Your task to perform on an android device: add a contact in the contacts app Image 0: 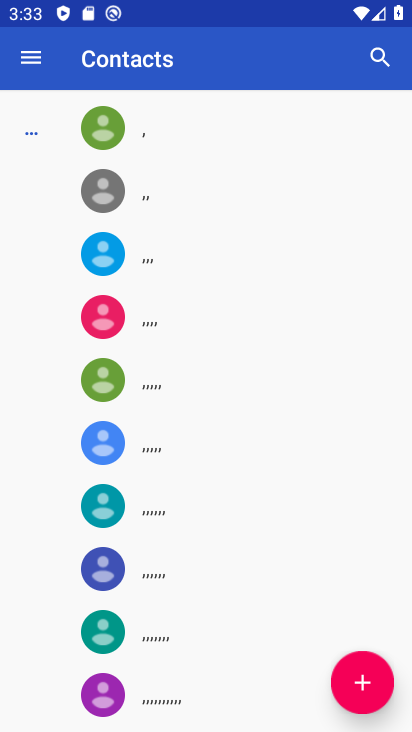
Step 0: click (362, 682)
Your task to perform on an android device: add a contact in the contacts app Image 1: 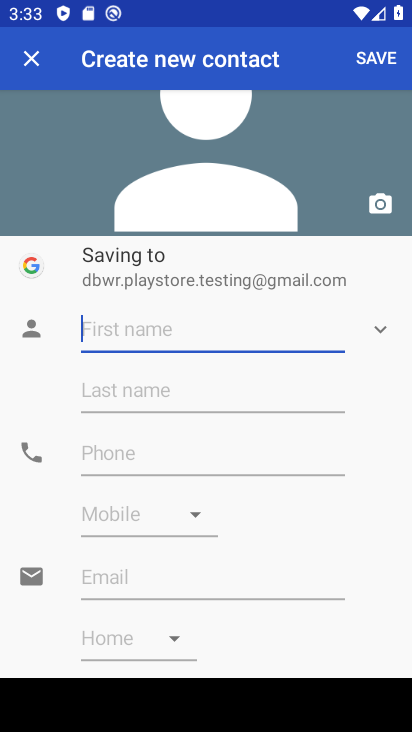
Step 1: type "xhjxbhj"
Your task to perform on an android device: add a contact in the contacts app Image 2: 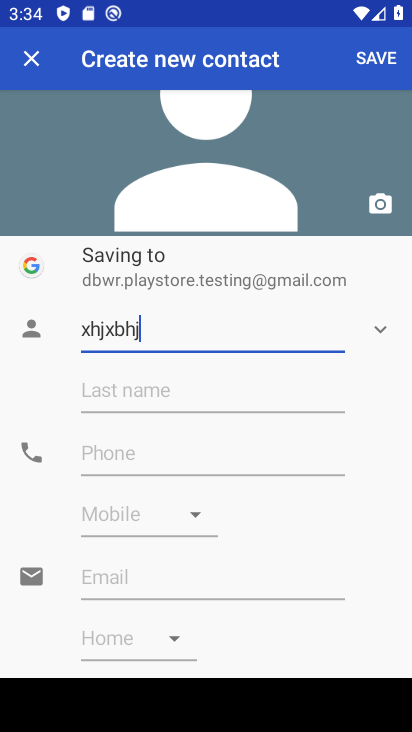
Step 2: click (230, 459)
Your task to perform on an android device: add a contact in the contacts app Image 3: 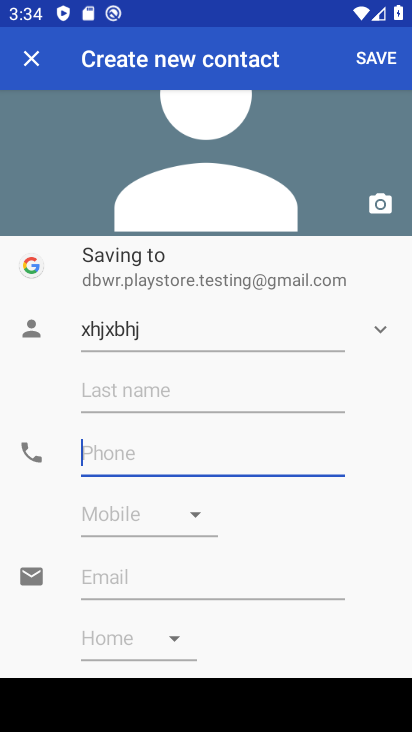
Step 3: type "738387"
Your task to perform on an android device: add a contact in the contacts app Image 4: 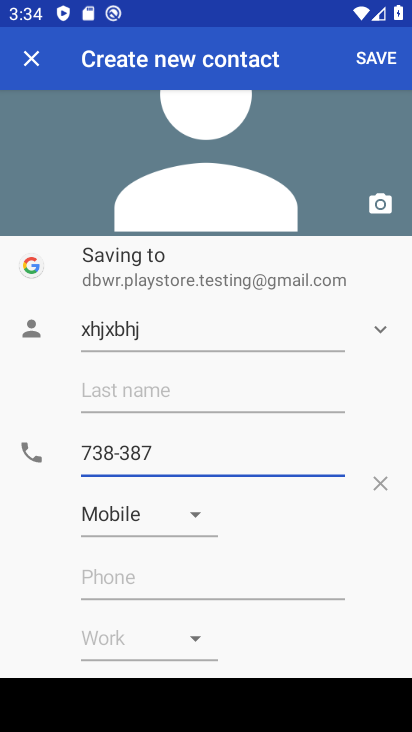
Step 4: click (379, 57)
Your task to perform on an android device: add a contact in the contacts app Image 5: 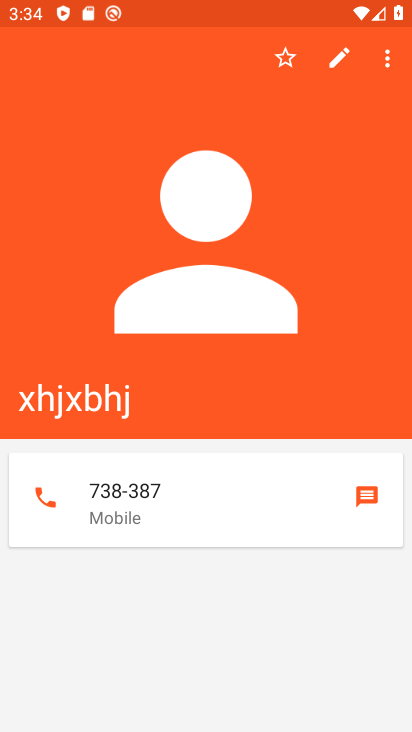
Step 5: task complete